Your task to perform on an android device: Open maps Image 0: 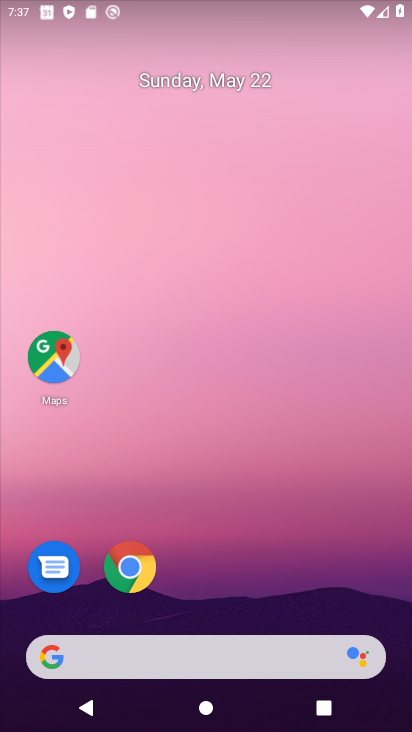
Step 0: click (54, 361)
Your task to perform on an android device: Open maps Image 1: 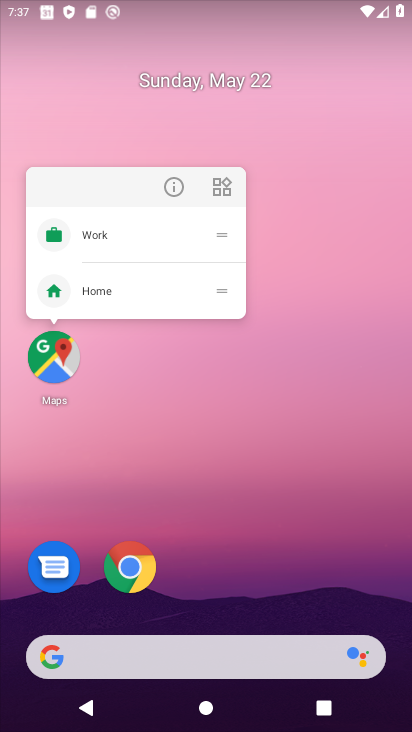
Step 1: click (54, 358)
Your task to perform on an android device: Open maps Image 2: 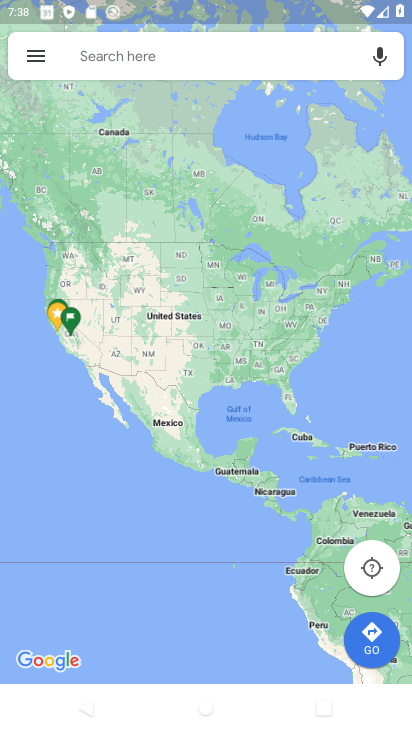
Step 2: task complete